Your task to perform on an android device: Open my contact list Image 0: 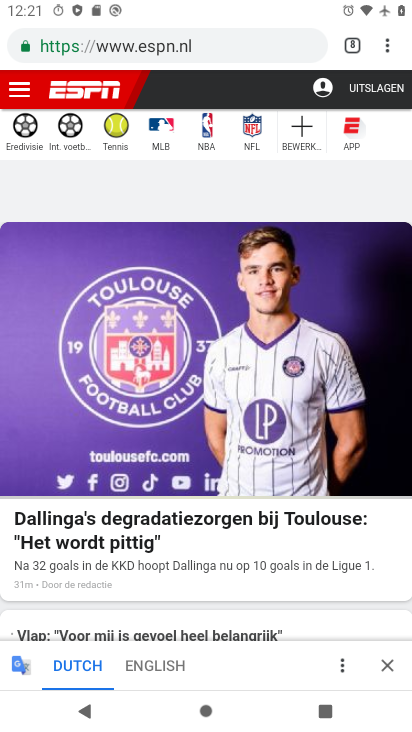
Step 0: press home button
Your task to perform on an android device: Open my contact list Image 1: 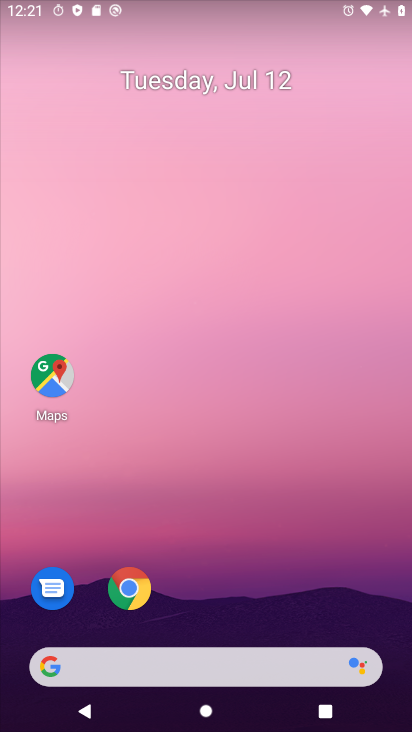
Step 1: drag from (210, 665) to (262, 65)
Your task to perform on an android device: Open my contact list Image 2: 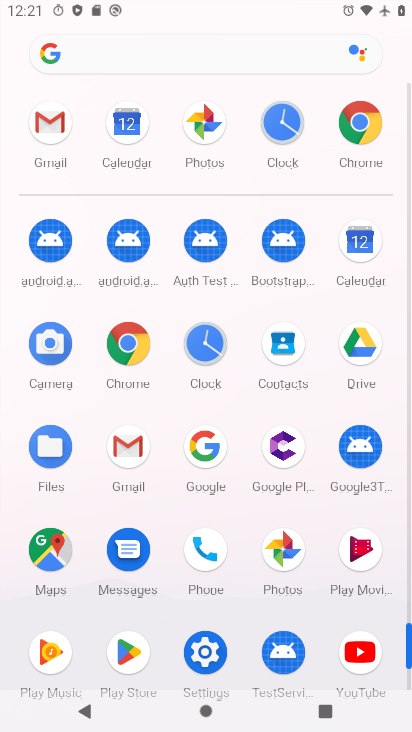
Step 2: click (290, 357)
Your task to perform on an android device: Open my contact list Image 3: 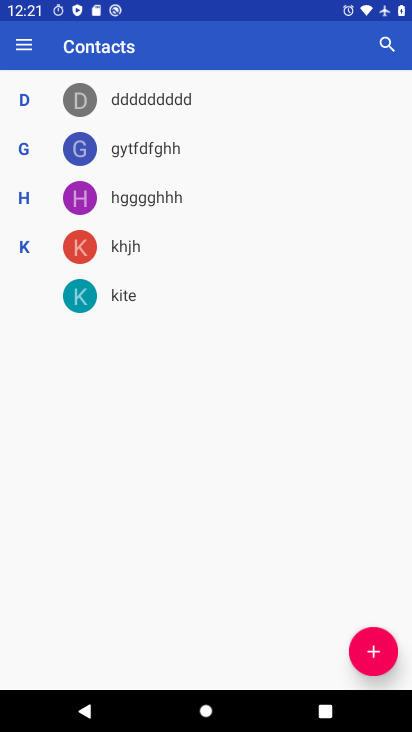
Step 3: task complete